Your task to perform on an android device: Go to privacy settings Image 0: 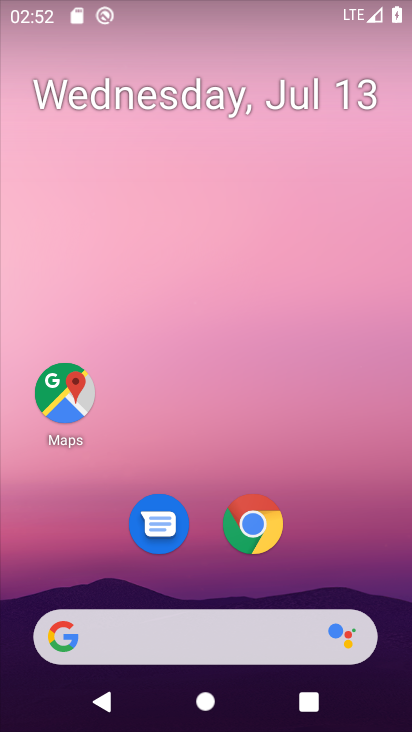
Step 0: drag from (326, 550) to (314, 41)
Your task to perform on an android device: Go to privacy settings Image 1: 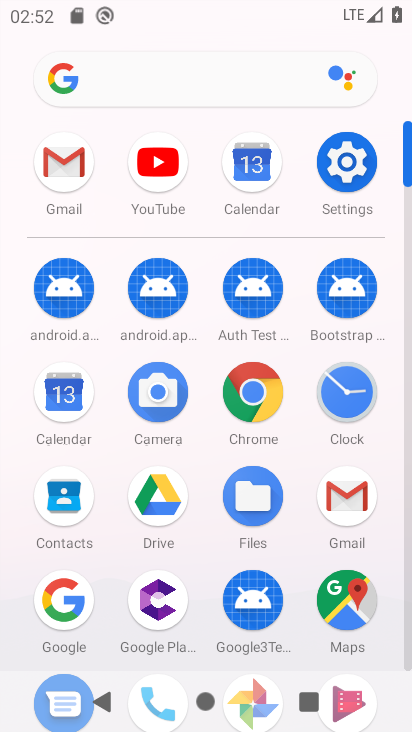
Step 1: click (341, 174)
Your task to perform on an android device: Go to privacy settings Image 2: 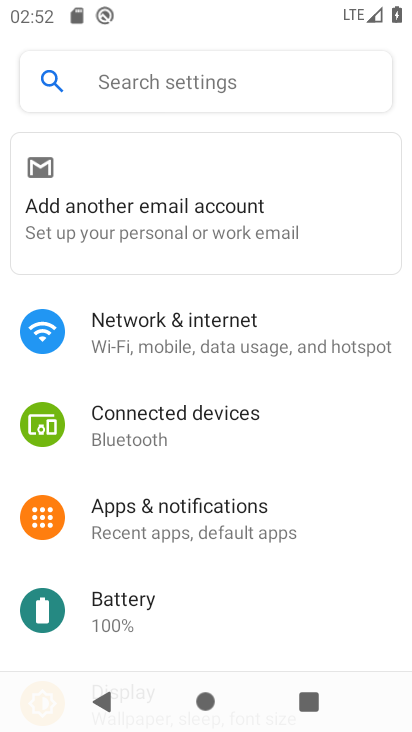
Step 2: drag from (224, 609) to (258, 107)
Your task to perform on an android device: Go to privacy settings Image 3: 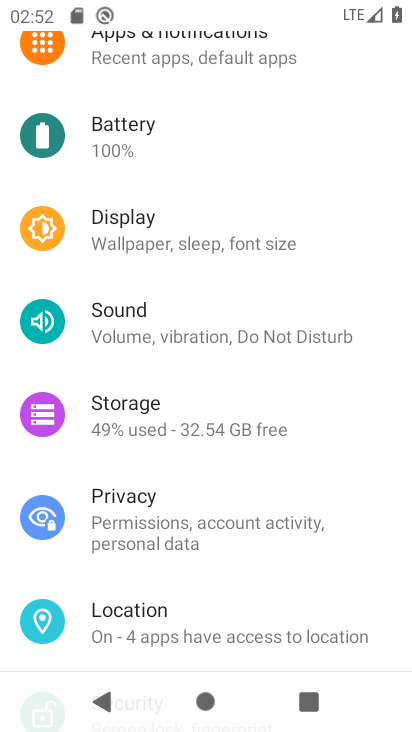
Step 3: click (190, 529)
Your task to perform on an android device: Go to privacy settings Image 4: 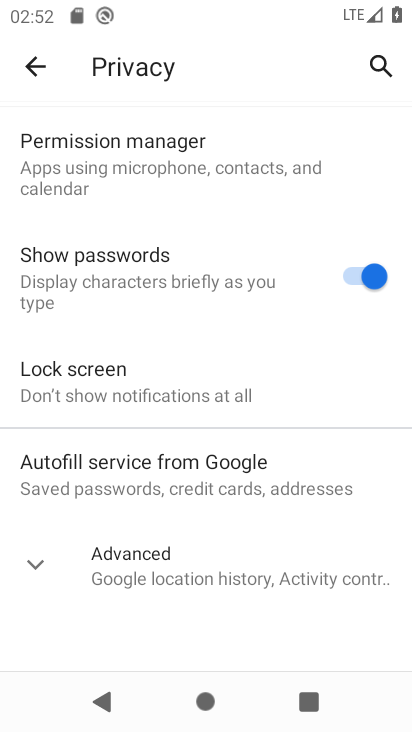
Step 4: task complete